Your task to perform on an android device: set default search engine in the chrome app Image 0: 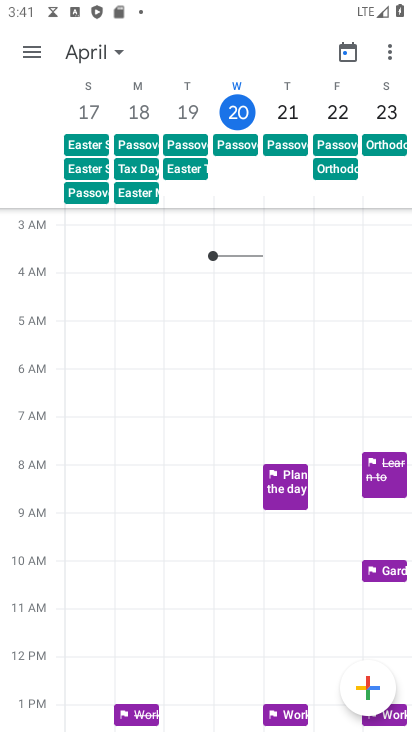
Step 0: press home button
Your task to perform on an android device: set default search engine in the chrome app Image 1: 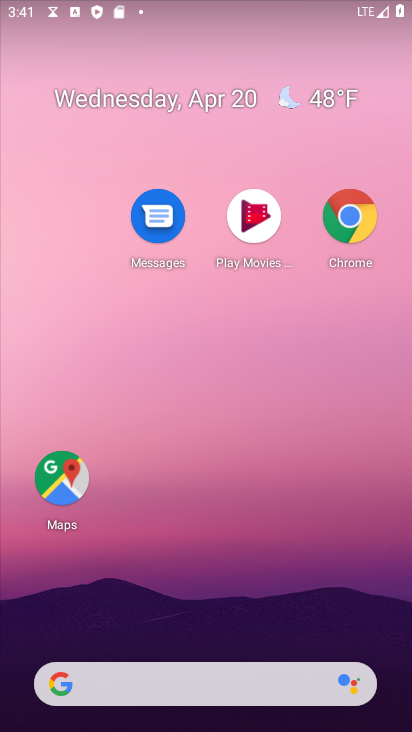
Step 1: click (371, 220)
Your task to perform on an android device: set default search engine in the chrome app Image 2: 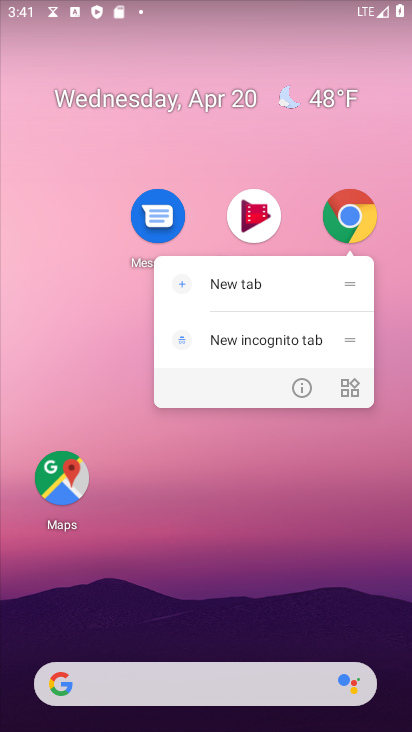
Step 2: click (307, 395)
Your task to perform on an android device: set default search engine in the chrome app Image 3: 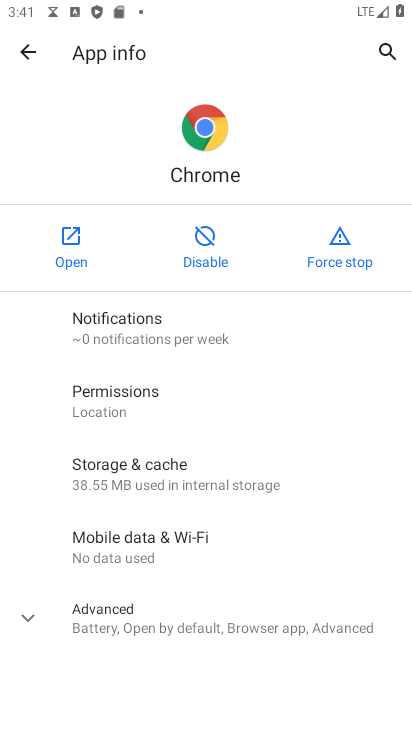
Step 3: click (74, 246)
Your task to perform on an android device: set default search engine in the chrome app Image 4: 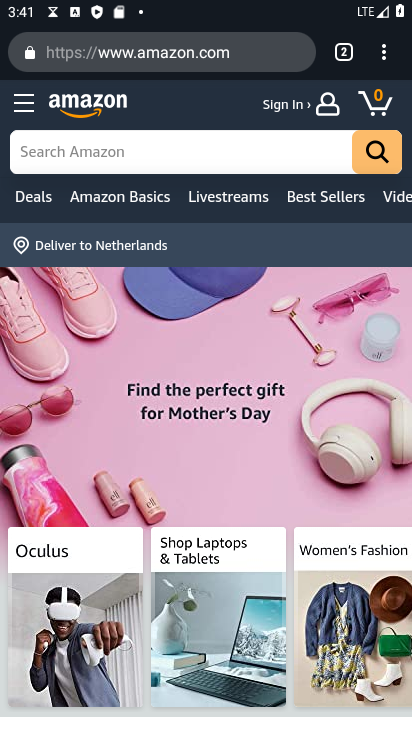
Step 4: click (388, 58)
Your task to perform on an android device: set default search engine in the chrome app Image 5: 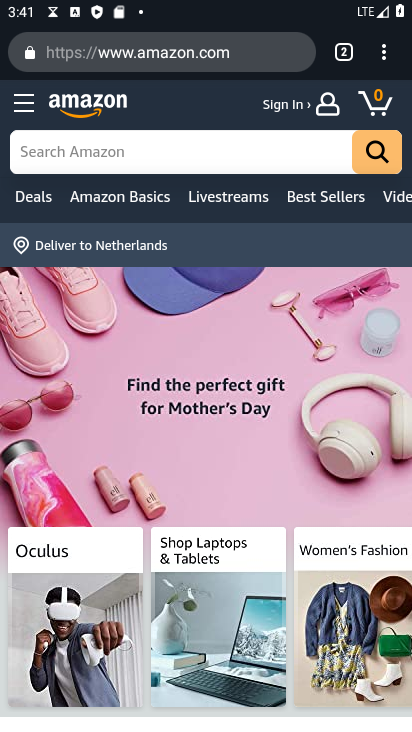
Step 5: click (385, 58)
Your task to perform on an android device: set default search engine in the chrome app Image 6: 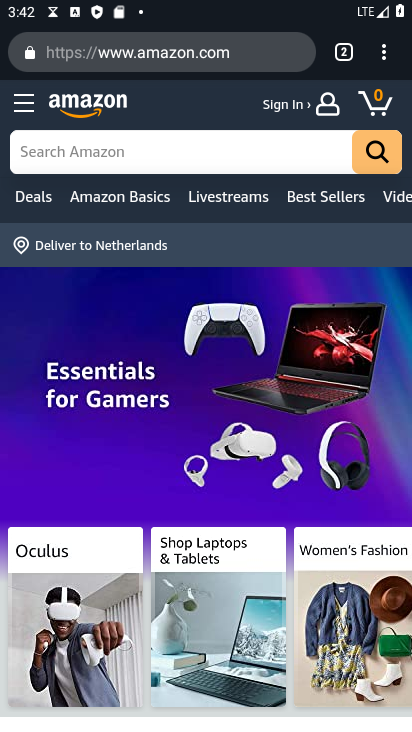
Step 6: click (387, 58)
Your task to perform on an android device: set default search engine in the chrome app Image 7: 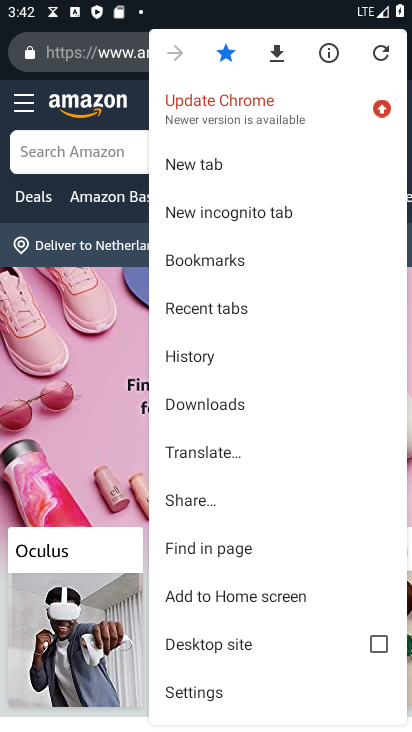
Step 7: click (203, 694)
Your task to perform on an android device: set default search engine in the chrome app Image 8: 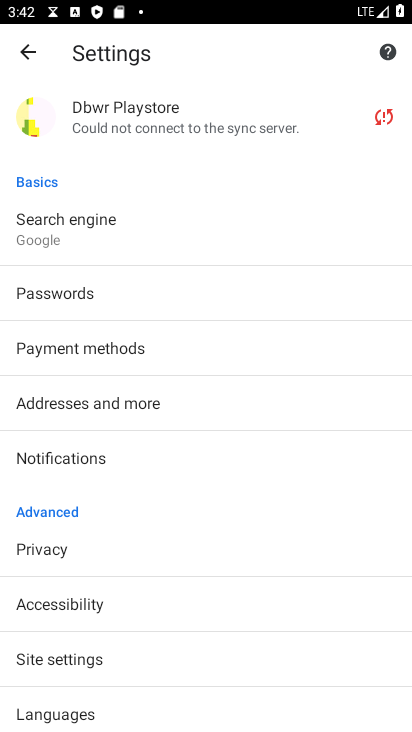
Step 8: click (117, 235)
Your task to perform on an android device: set default search engine in the chrome app Image 9: 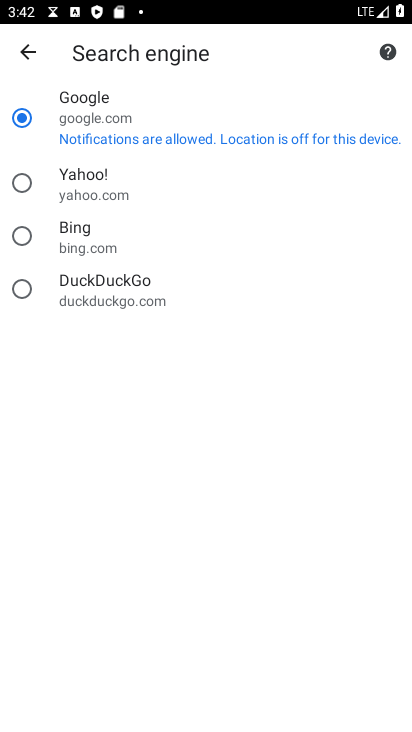
Step 9: task complete